Your task to perform on an android device: toggle notifications settings in the gmail app Image 0: 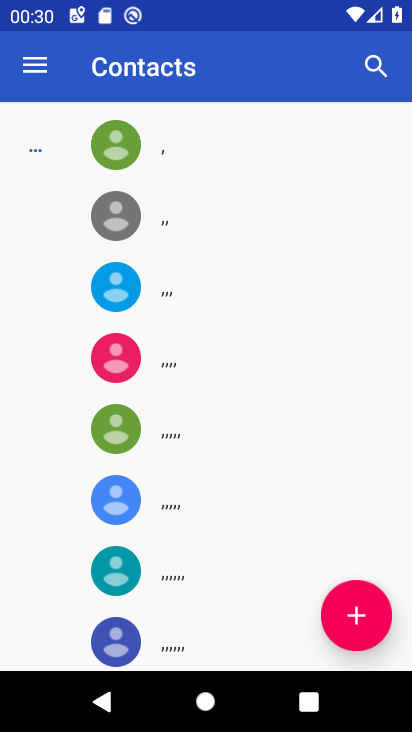
Step 0: press home button
Your task to perform on an android device: toggle notifications settings in the gmail app Image 1: 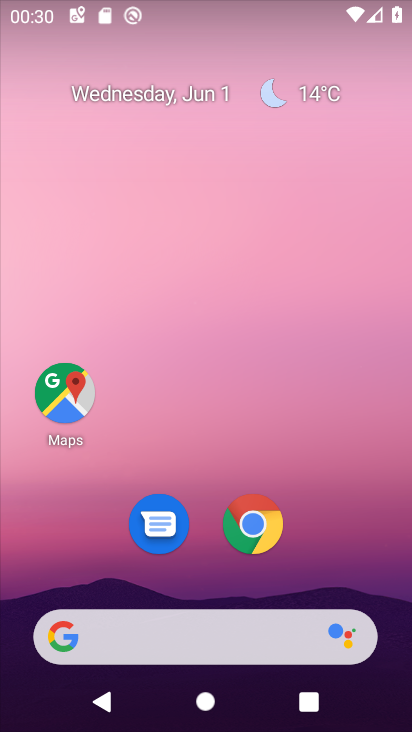
Step 1: drag from (313, 534) to (290, 52)
Your task to perform on an android device: toggle notifications settings in the gmail app Image 2: 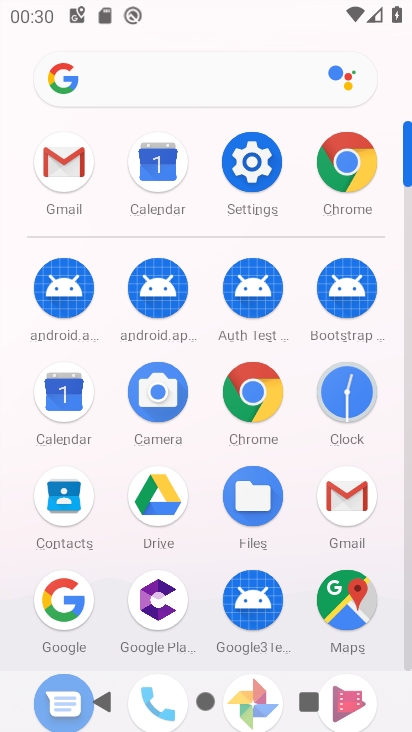
Step 2: click (79, 164)
Your task to perform on an android device: toggle notifications settings in the gmail app Image 3: 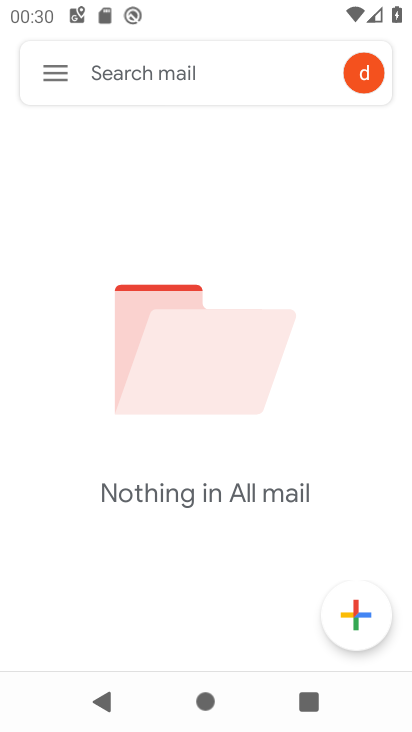
Step 3: click (52, 67)
Your task to perform on an android device: toggle notifications settings in the gmail app Image 4: 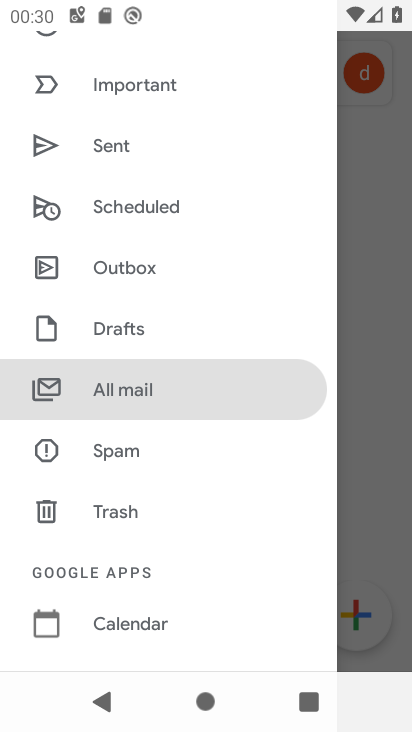
Step 4: drag from (151, 510) to (186, 64)
Your task to perform on an android device: toggle notifications settings in the gmail app Image 5: 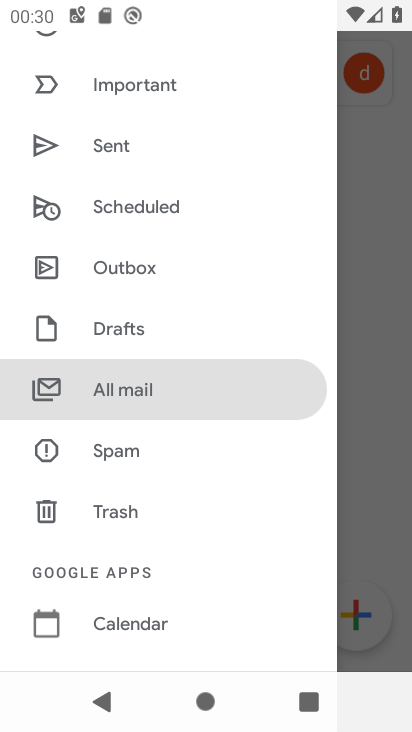
Step 5: drag from (195, 607) to (194, 101)
Your task to perform on an android device: toggle notifications settings in the gmail app Image 6: 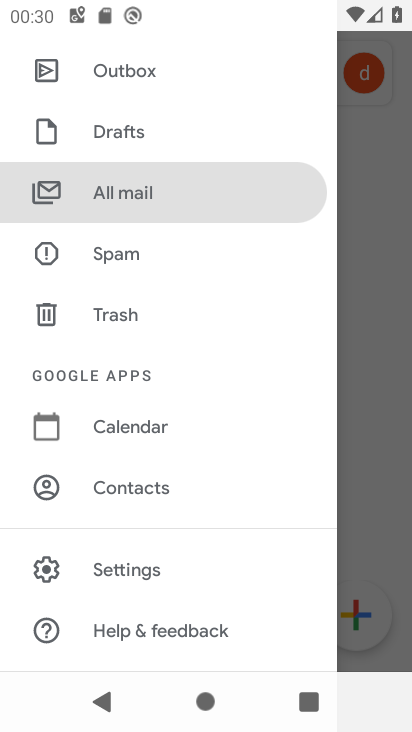
Step 6: click (177, 559)
Your task to perform on an android device: toggle notifications settings in the gmail app Image 7: 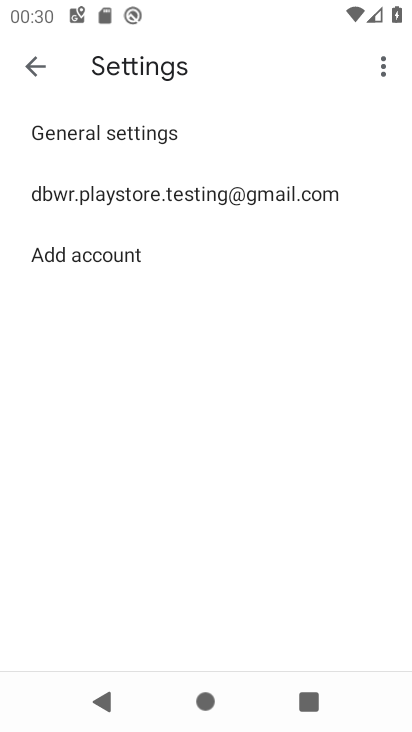
Step 7: click (166, 132)
Your task to perform on an android device: toggle notifications settings in the gmail app Image 8: 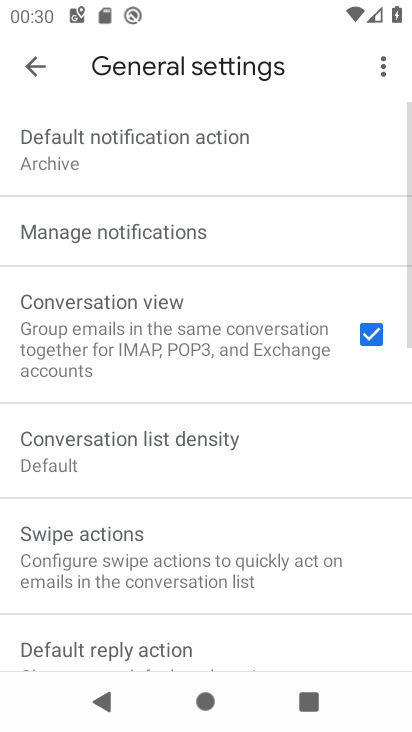
Step 8: click (185, 214)
Your task to perform on an android device: toggle notifications settings in the gmail app Image 9: 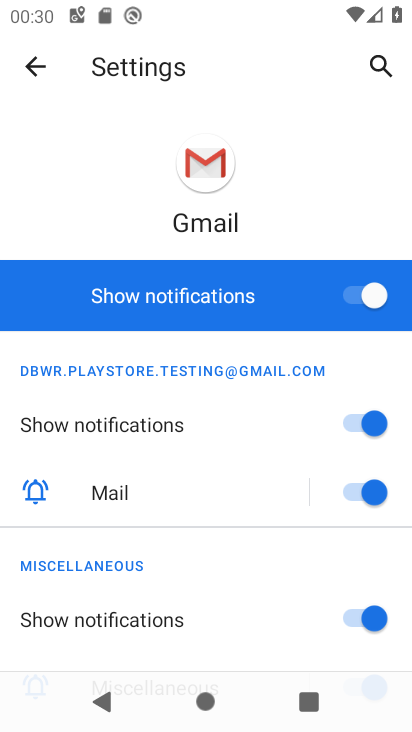
Step 9: click (352, 285)
Your task to perform on an android device: toggle notifications settings in the gmail app Image 10: 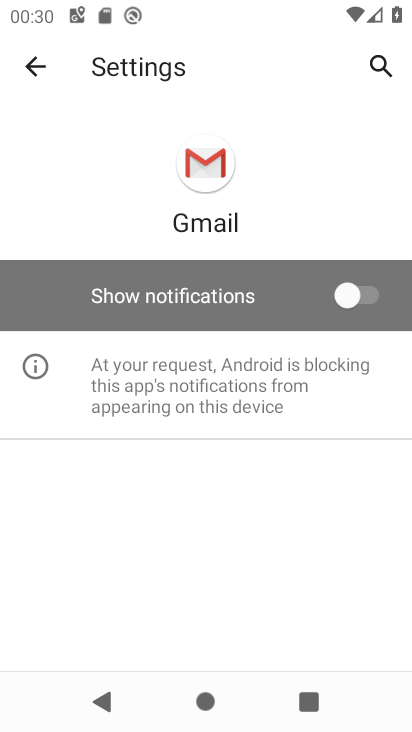
Step 10: task complete